Your task to perform on an android device: turn on priority inbox in the gmail app Image 0: 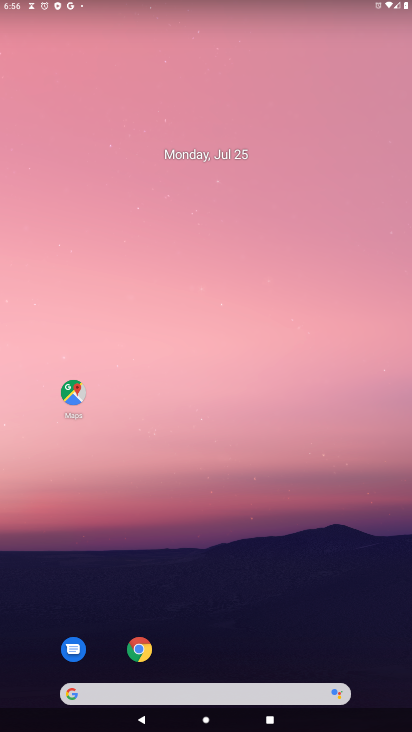
Step 0: drag from (310, 432) to (309, 227)
Your task to perform on an android device: turn on priority inbox in the gmail app Image 1: 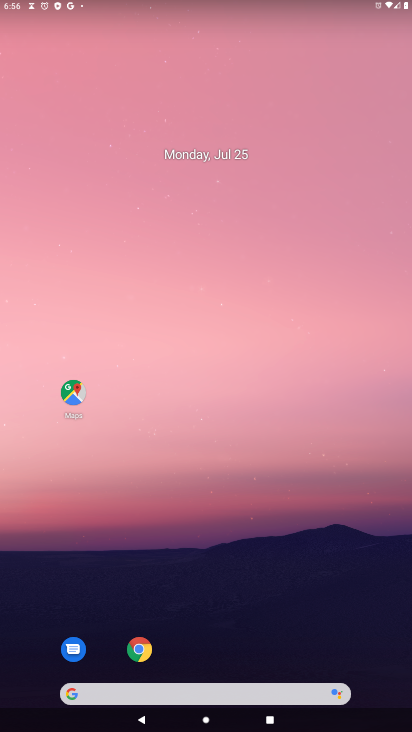
Step 1: drag from (212, 693) to (288, 2)
Your task to perform on an android device: turn on priority inbox in the gmail app Image 2: 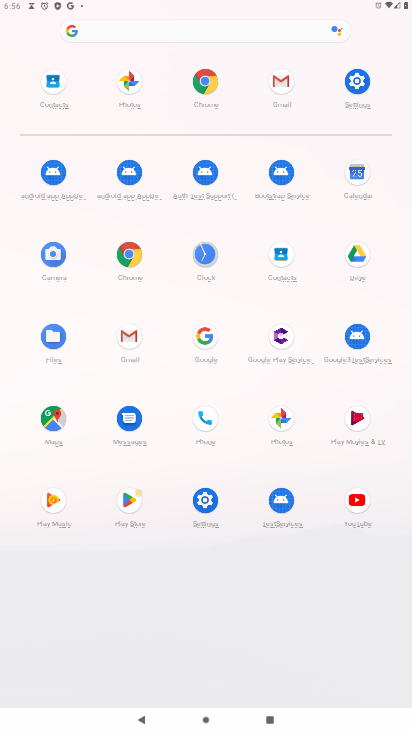
Step 2: click (135, 339)
Your task to perform on an android device: turn on priority inbox in the gmail app Image 3: 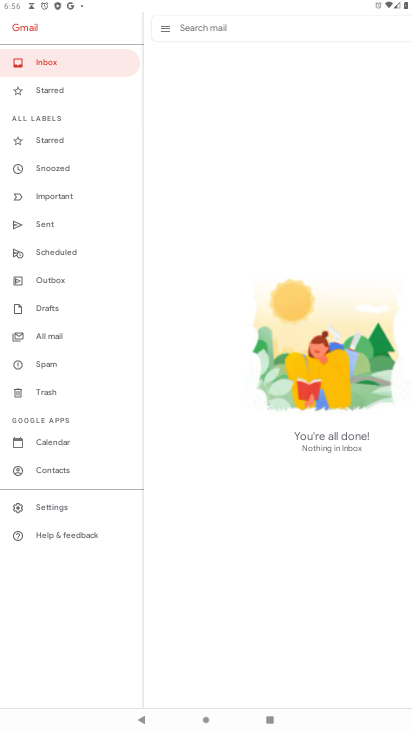
Step 3: click (69, 511)
Your task to perform on an android device: turn on priority inbox in the gmail app Image 4: 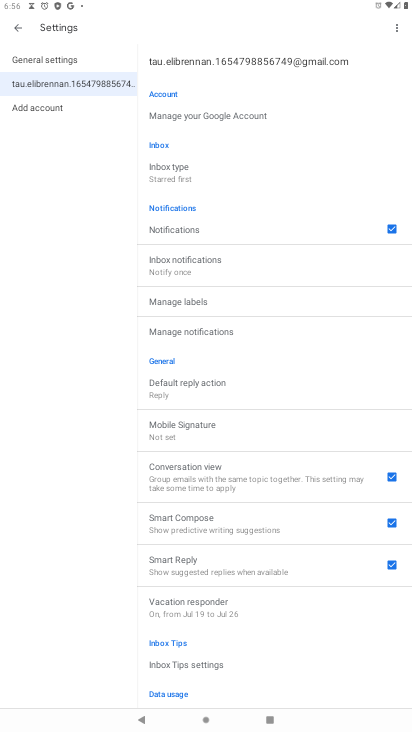
Step 4: click (181, 168)
Your task to perform on an android device: turn on priority inbox in the gmail app Image 5: 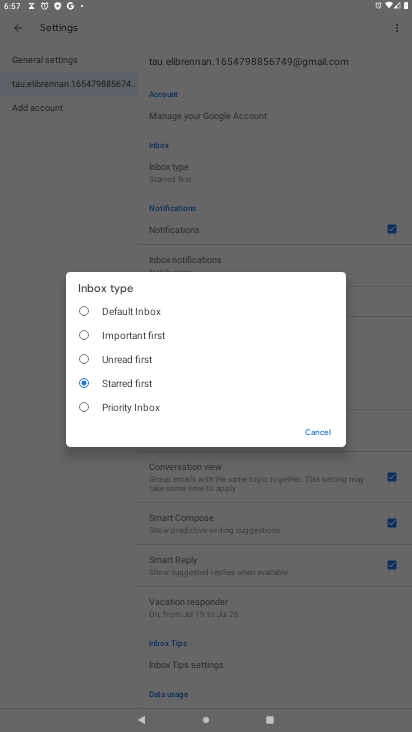
Step 5: click (87, 404)
Your task to perform on an android device: turn on priority inbox in the gmail app Image 6: 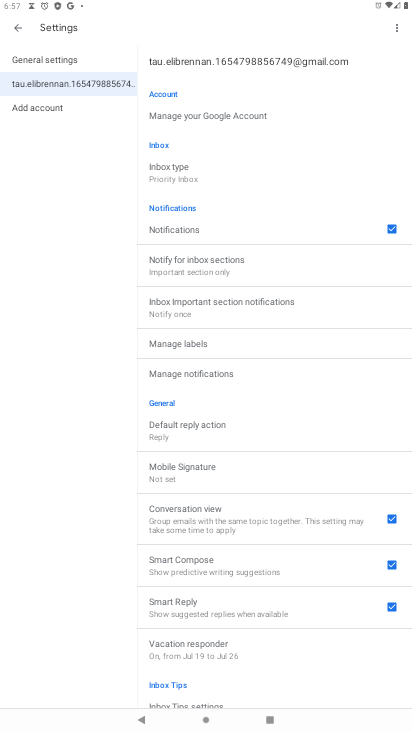
Step 6: task complete